Your task to perform on an android device: change the clock display to show seconds Image 0: 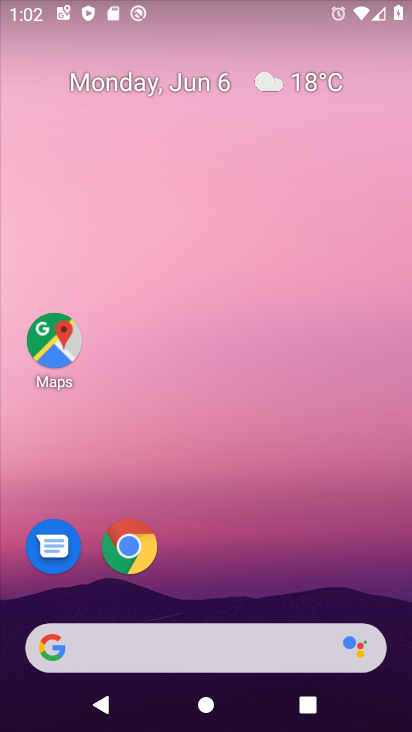
Step 0: drag from (269, 463) to (293, 129)
Your task to perform on an android device: change the clock display to show seconds Image 1: 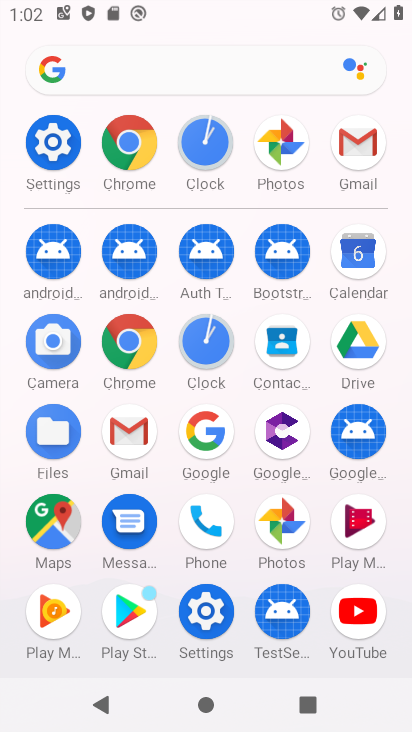
Step 1: click (208, 144)
Your task to perform on an android device: change the clock display to show seconds Image 2: 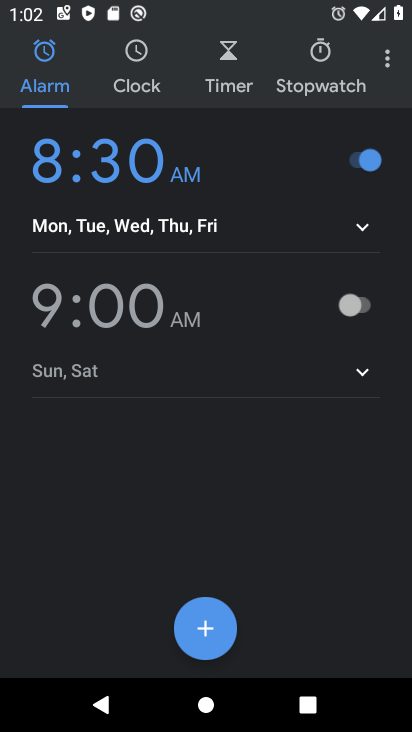
Step 2: click (388, 55)
Your task to perform on an android device: change the clock display to show seconds Image 3: 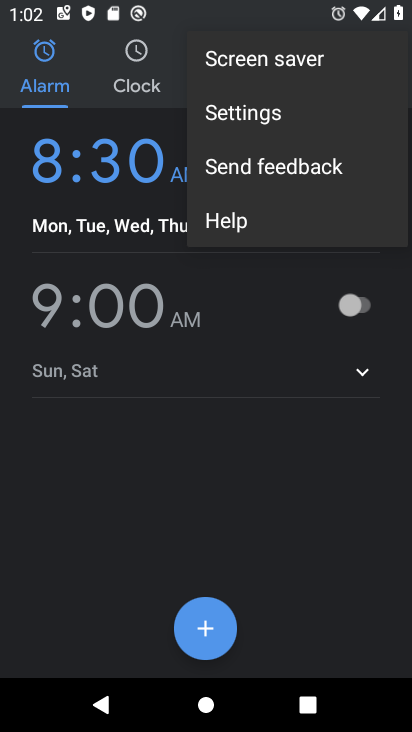
Step 3: click (234, 117)
Your task to perform on an android device: change the clock display to show seconds Image 4: 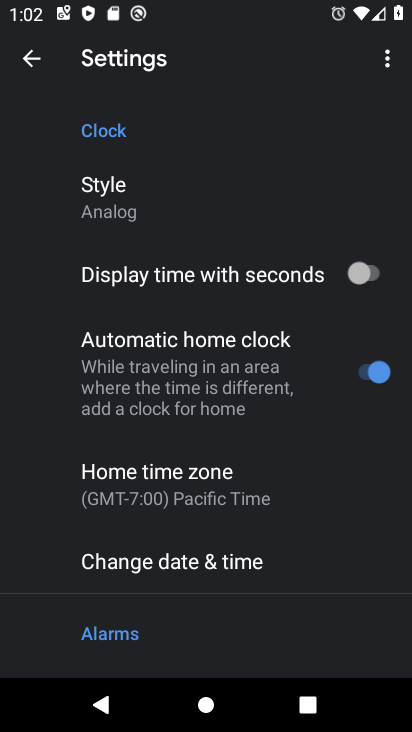
Step 4: click (362, 274)
Your task to perform on an android device: change the clock display to show seconds Image 5: 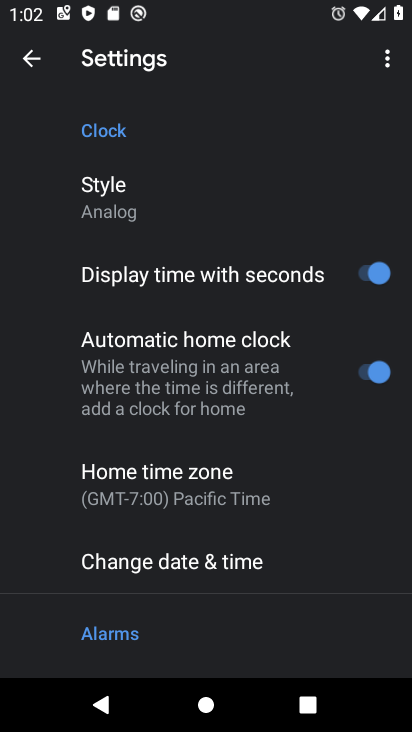
Step 5: task complete